Your task to perform on an android device: Open calendar and show me the second week of next month Image 0: 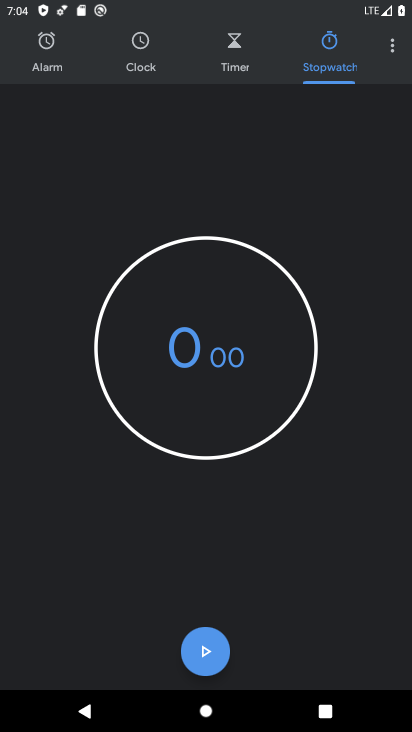
Step 0: press home button
Your task to perform on an android device: Open calendar and show me the second week of next month Image 1: 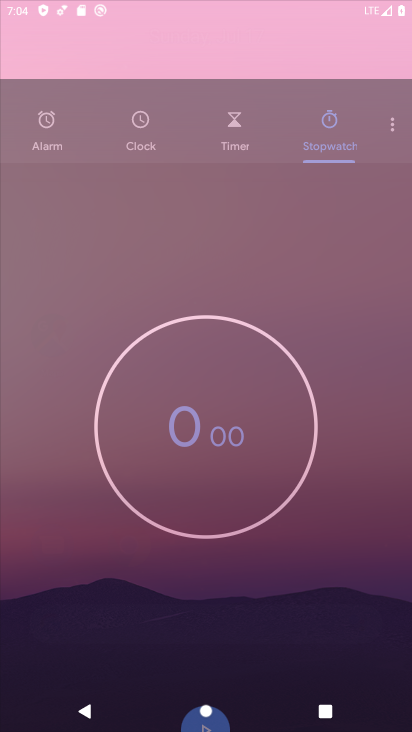
Step 1: drag from (372, 644) to (255, 38)
Your task to perform on an android device: Open calendar and show me the second week of next month Image 2: 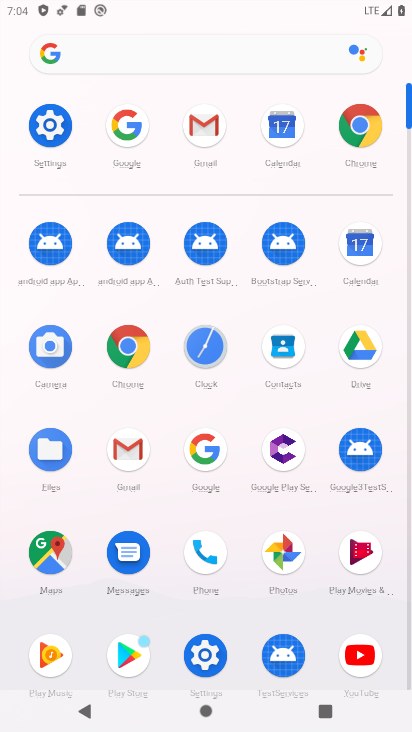
Step 2: click (363, 241)
Your task to perform on an android device: Open calendar and show me the second week of next month Image 3: 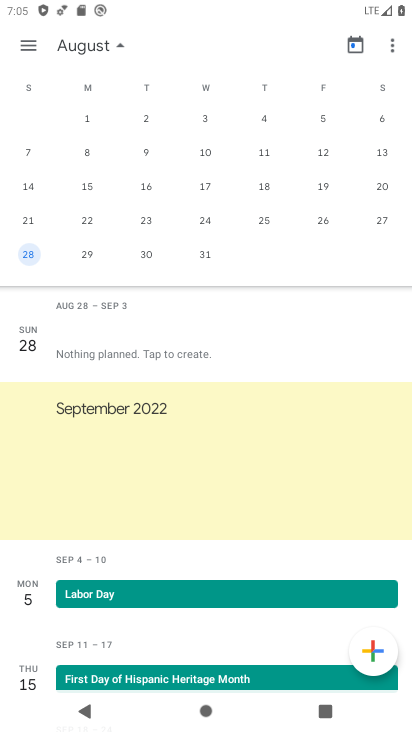
Step 3: drag from (392, 119) to (64, 172)
Your task to perform on an android device: Open calendar and show me the second week of next month Image 4: 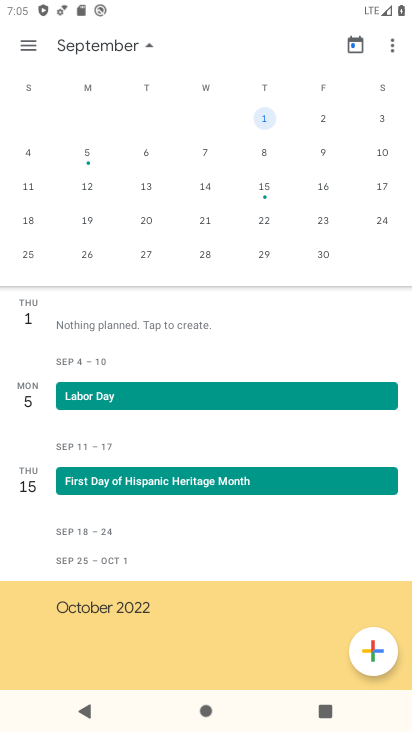
Step 4: click (31, 185)
Your task to perform on an android device: Open calendar and show me the second week of next month Image 5: 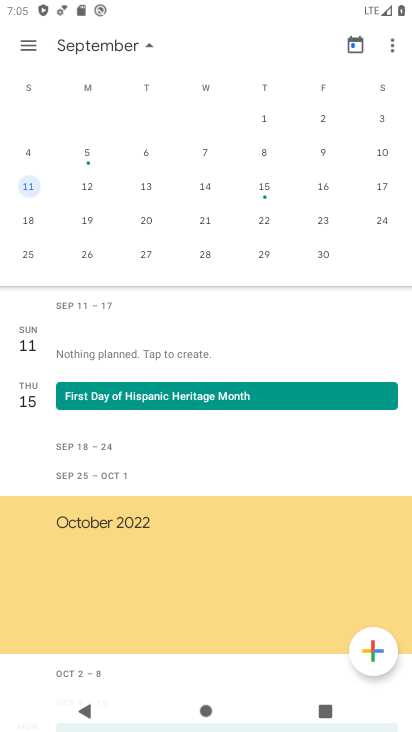
Step 5: task complete